Your task to perform on an android device: turn on bluetooth scan Image 0: 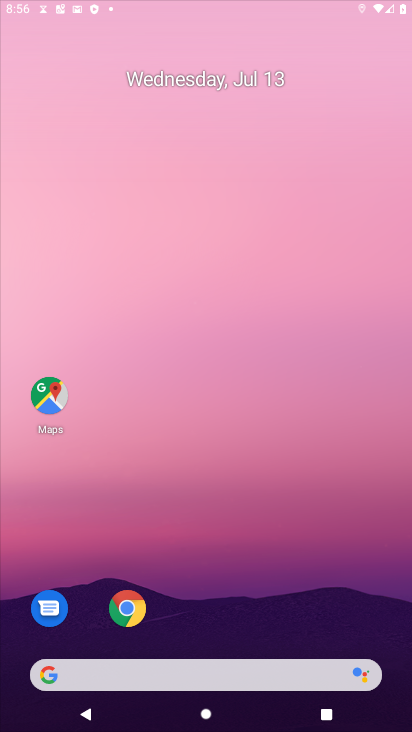
Step 0: drag from (225, 641) to (363, 8)
Your task to perform on an android device: turn on bluetooth scan Image 1: 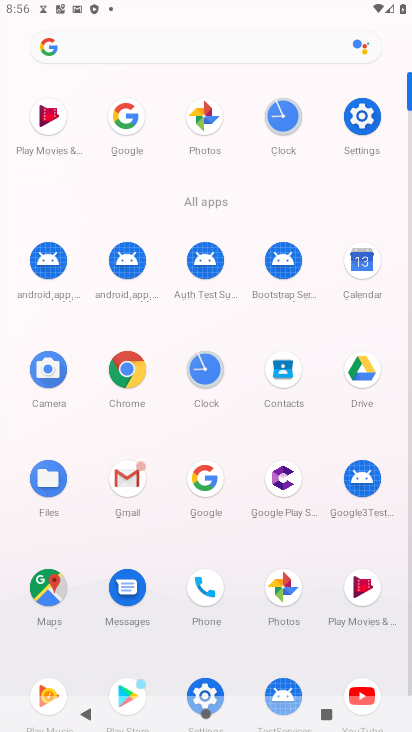
Step 1: click (208, 680)
Your task to perform on an android device: turn on bluetooth scan Image 2: 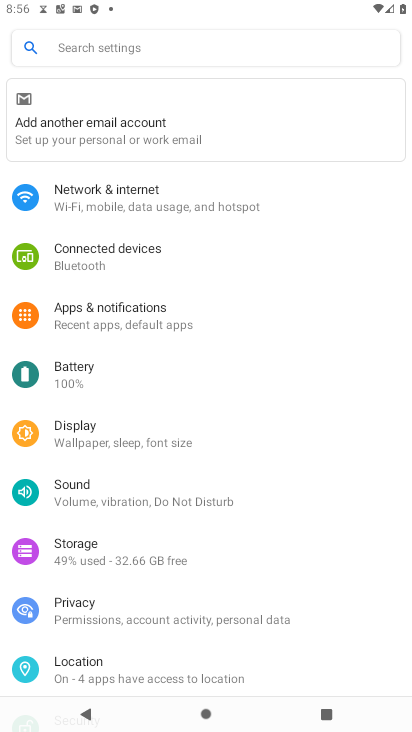
Step 2: click (162, 244)
Your task to perform on an android device: turn on bluetooth scan Image 3: 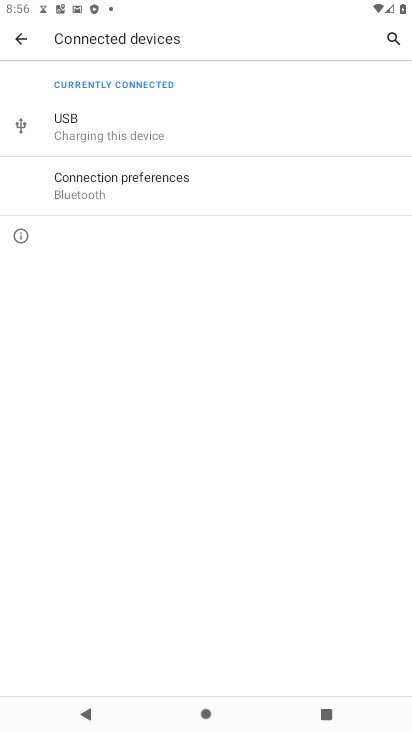
Step 3: click (150, 179)
Your task to perform on an android device: turn on bluetooth scan Image 4: 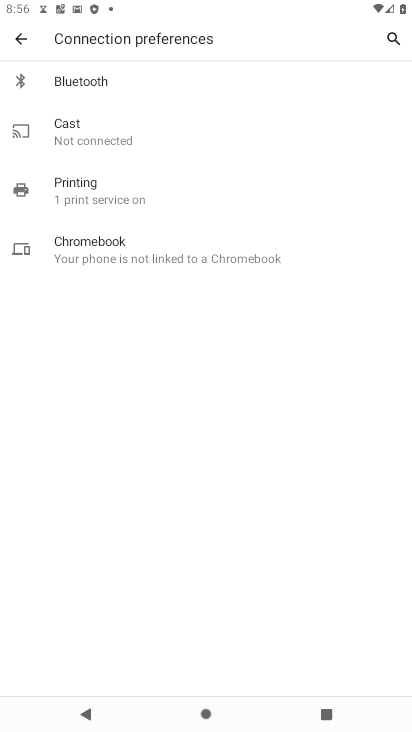
Step 4: click (148, 84)
Your task to perform on an android device: turn on bluetooth scan Image 5: 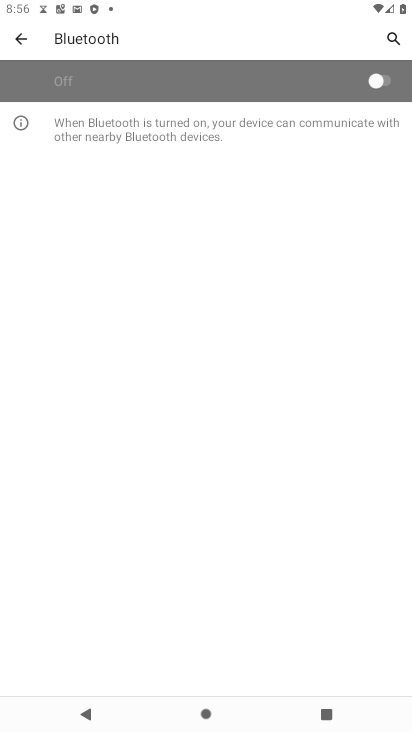
Step 5: click (373, 80)
Your task to perform on an android device: turn on bluetooth scan Image 6: 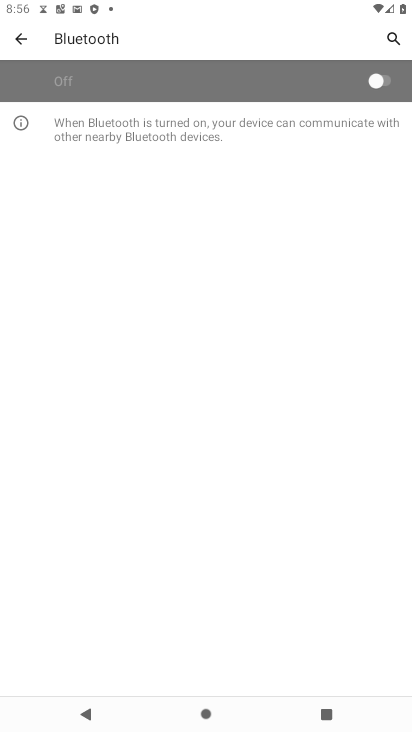
Step 6: click (388, 79)
Your task to perform on an android device: turn on bluetooth scan Image 7: 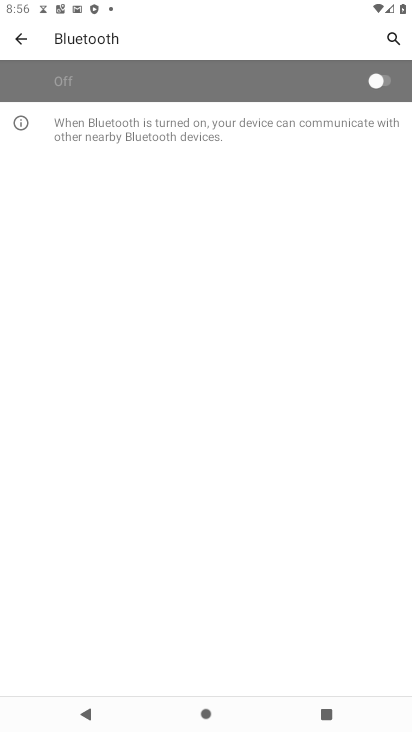
Step 7: click (388, 79)
Your task to perform on an android device: turn on bluetooth scan Image 8: 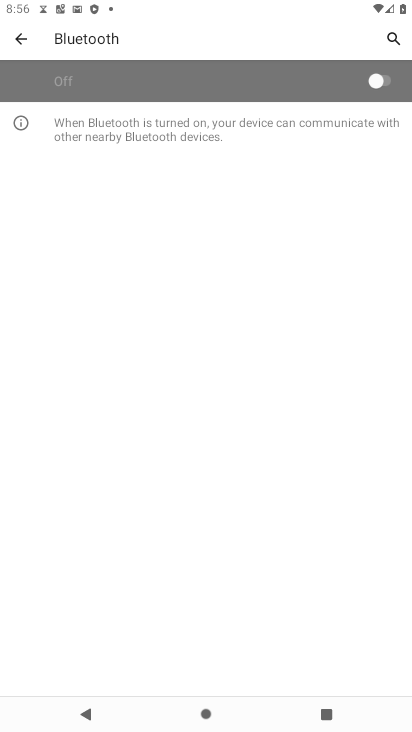
Step 8: click (388, 79)
Your task to perform on an android device: turn on bluetooth scan Image 9: 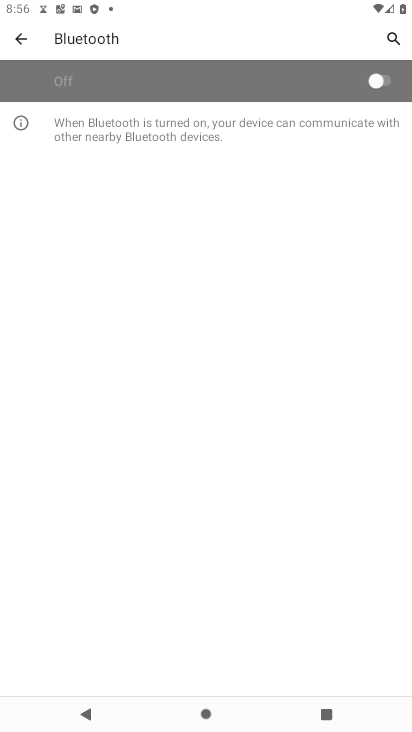
Step 9: click (388, 79)
Your task to perform on an android device: turn on bluetooth scan Image 10: 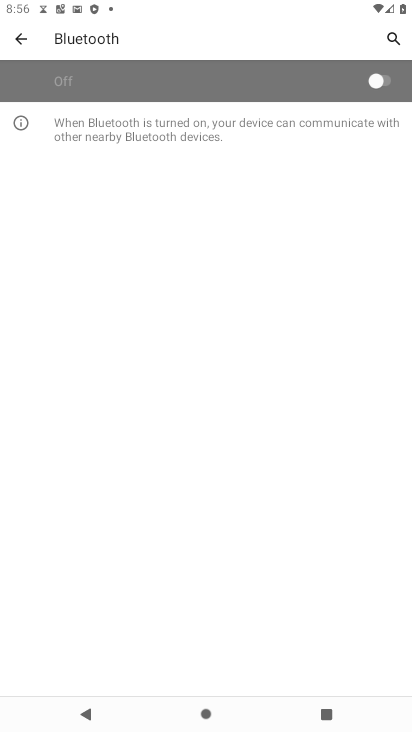
Step 10: task complete